Your task to perform on an android device: Show me recent news Image 0: 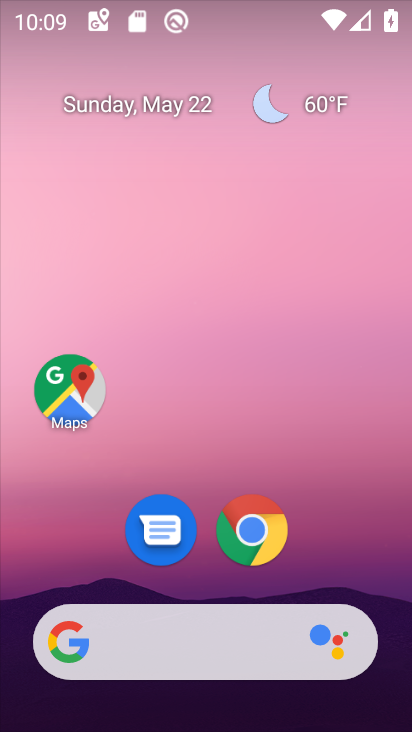
Step 0: drag from (2, 265) to (372, 259)
Your task to perform on an android device: Show me recent news Image 1: 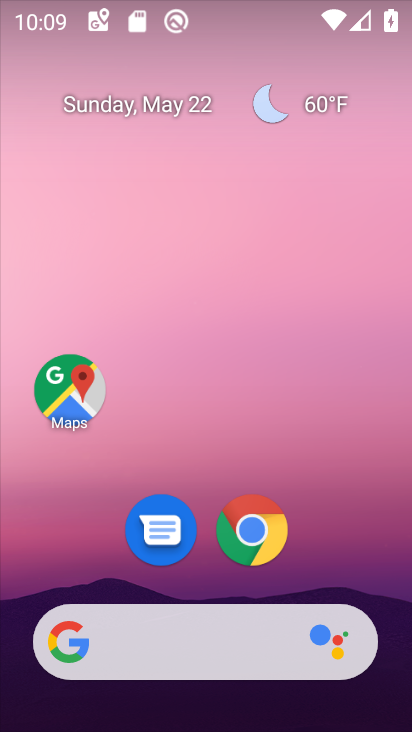
Step 1: drag from (9, 240) to (394, 423)
Your task to perform on an android device: Show me recent news Image 2: 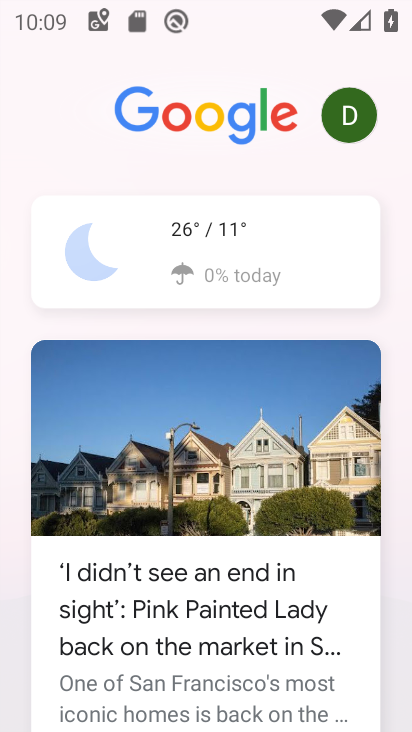
Step 2: click (380, 310)
Your task to perform on an android device: Show me recent news Image 3: 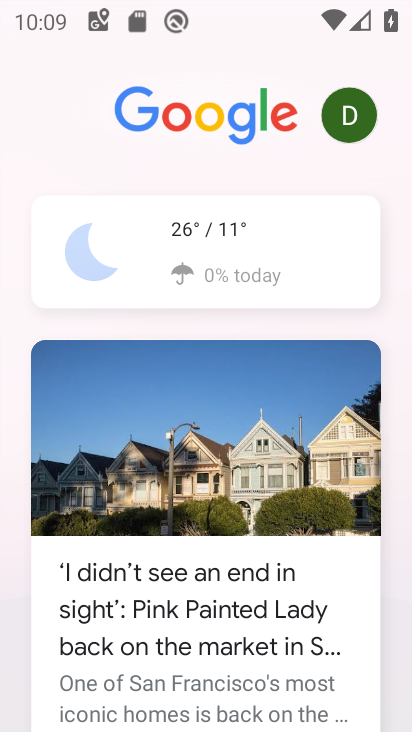
Step 3: task complete